Your task to perform on an android device: Turn on the flashlight Image 0: 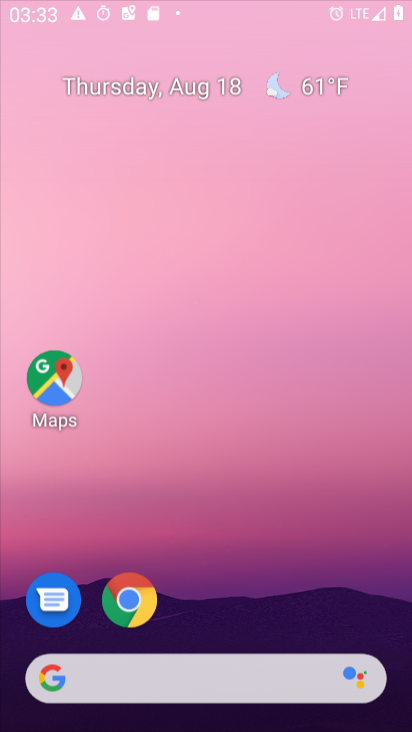
Step 0: press home button
Your task to perform on an android device: Turn on the flashlight Image 1: 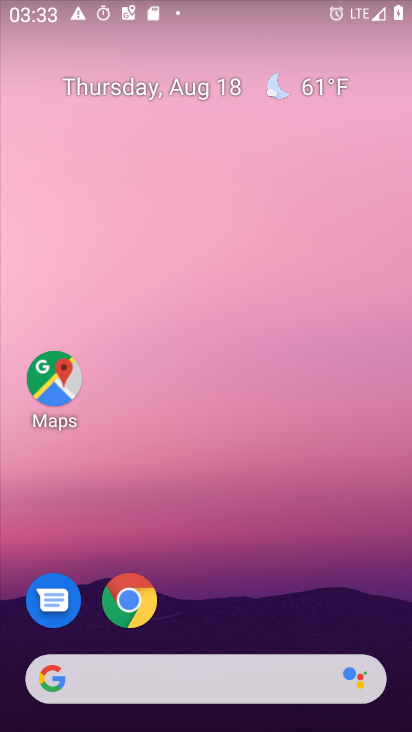
Step 1: task complete